Your task to perform on an android device: see creations saved in the google photos Image 0: 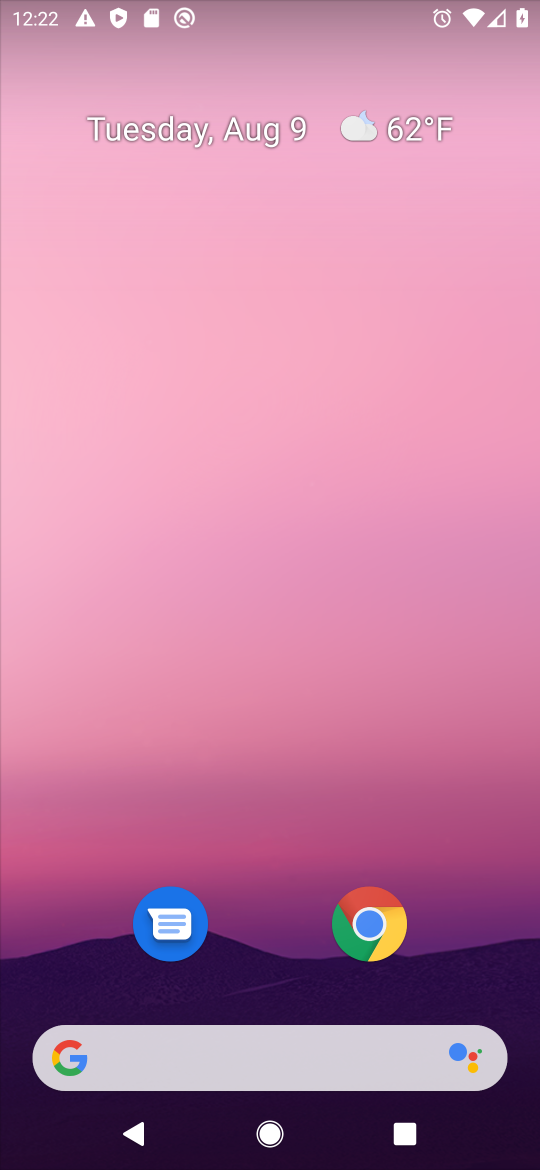
Step 0: drag from (326, 992) to (397, 266)
Your task to perform on an android device: see creations saved in the google photos Image 1: 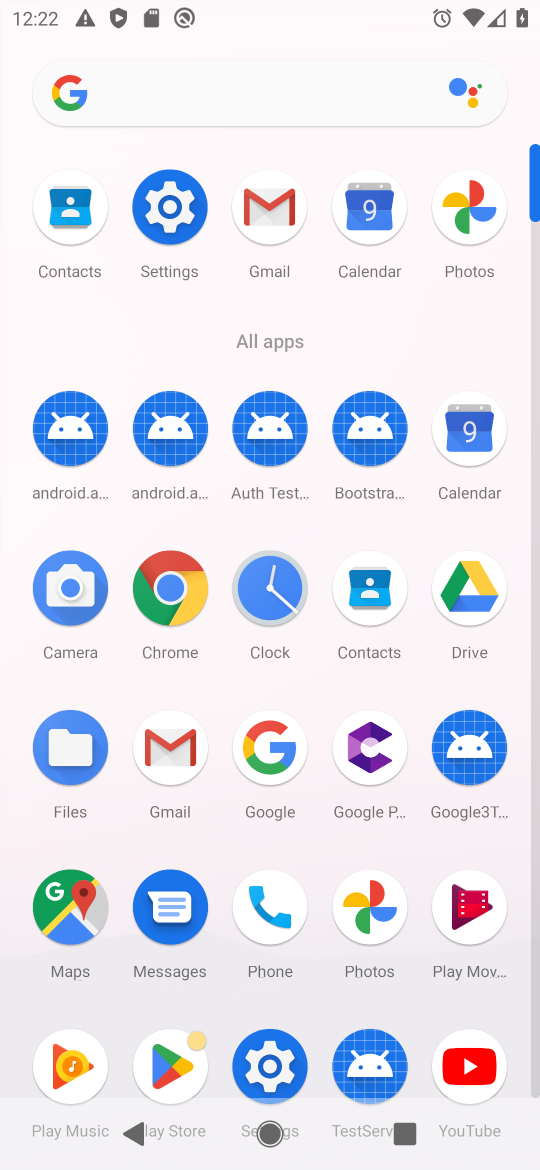
Step 1: click (469, 269)
Your task to perform on an android device: see creations saved in the google photos Image 2: 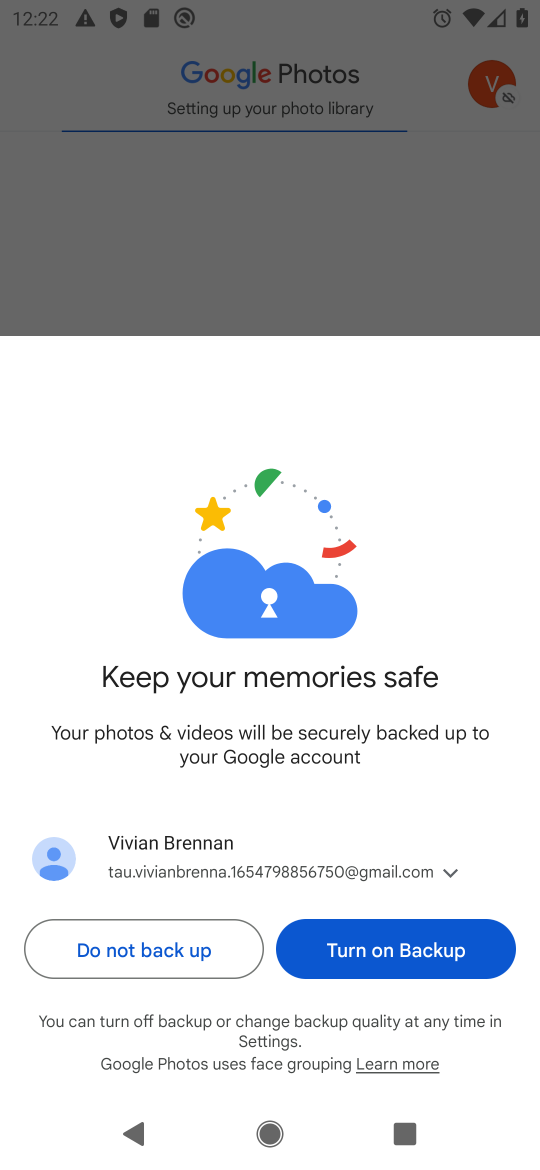
Step 2: click (193, 930)
Your task to perform on an android device: see creations saved in the google photos Image 3: 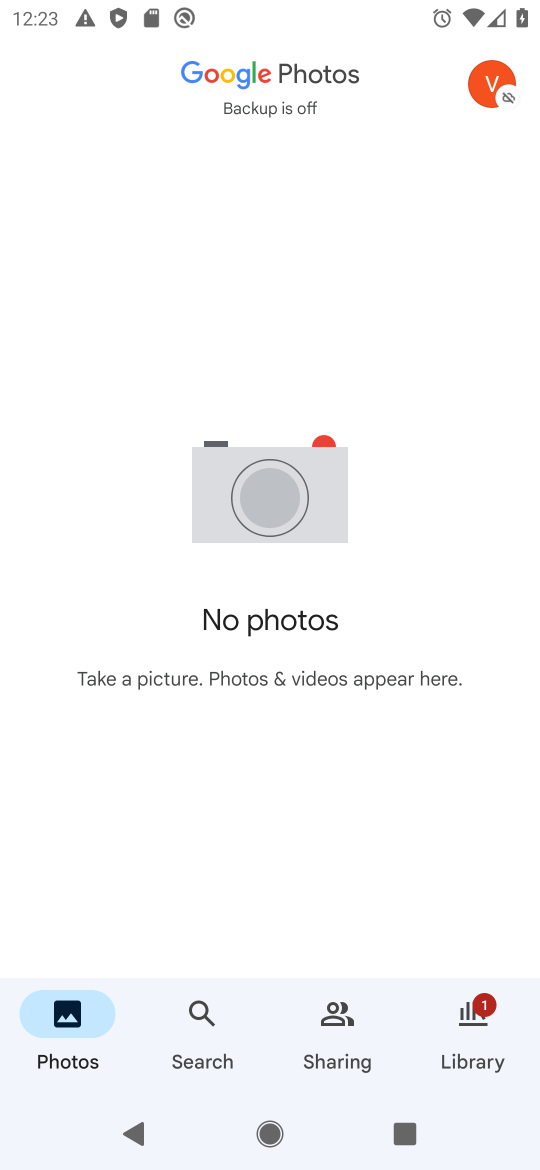
Step 3: task complete